Your task to perform on an android device: turn on translation in the chrome app Image 0: 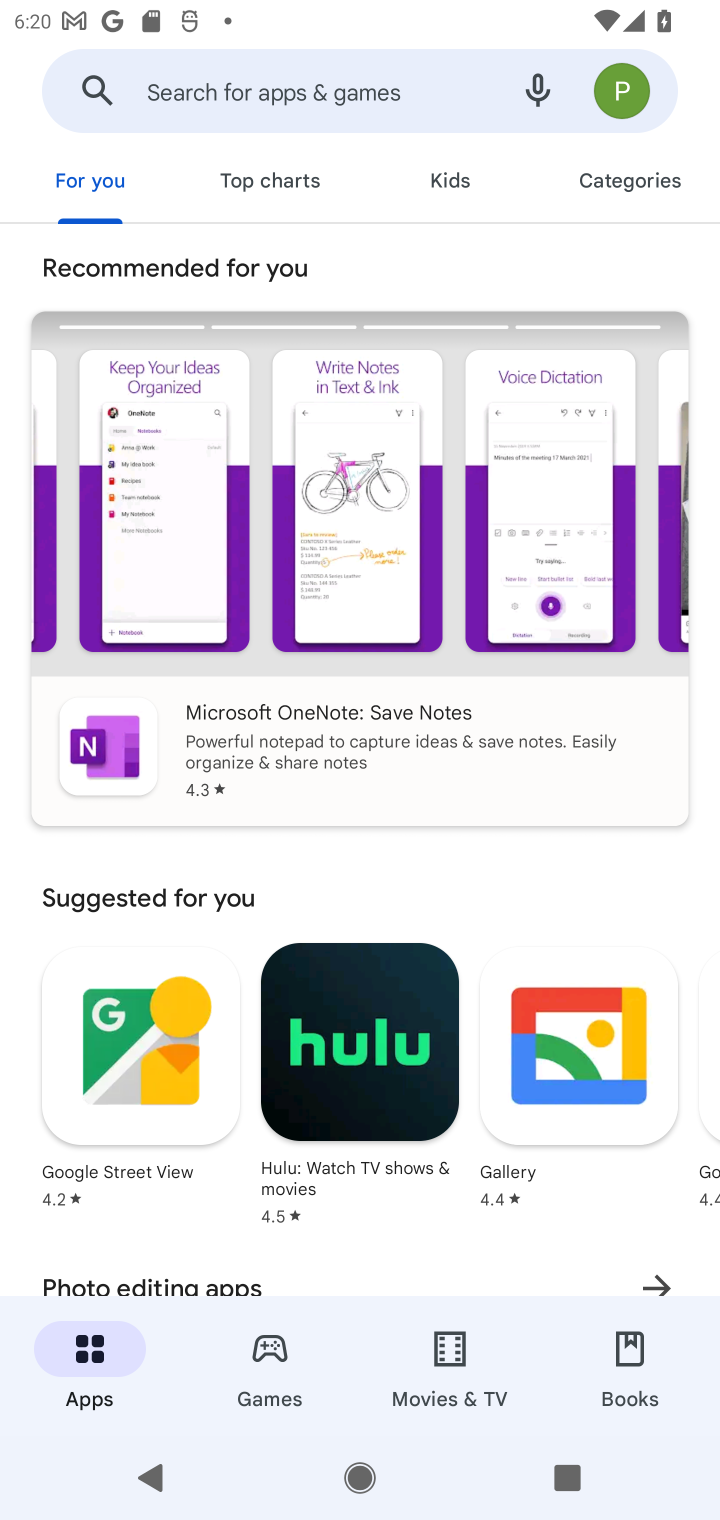
Step 0: press home button
Your task to perform on an android device: turn on translation in the chrome app Image 1: 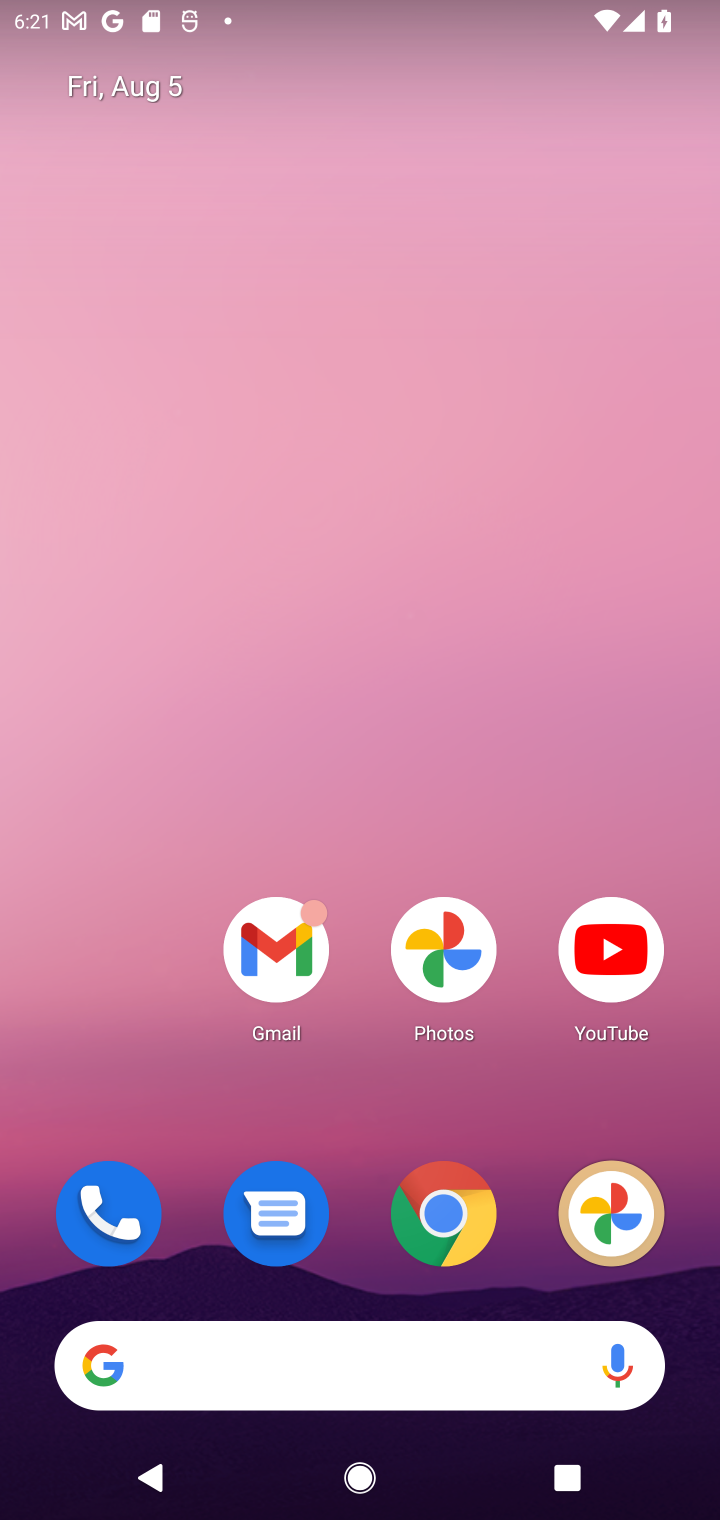
Step 1: click (448, 1238)
Your task to perform on an android device: turn on translation in the chrome app Image 2: 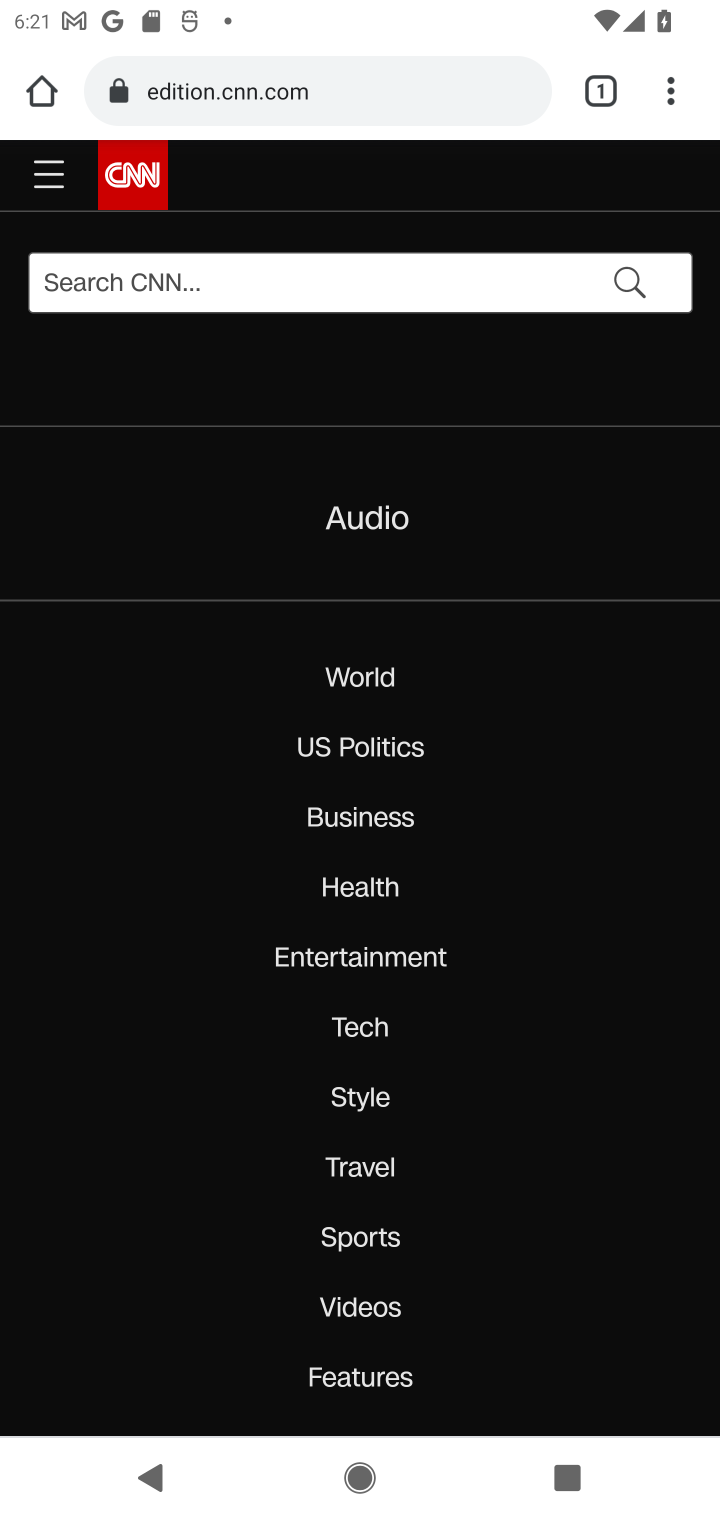
Step 2: click (681, 97)
Your task to perform on an android device: turn on translation in the chrome app Image 3: 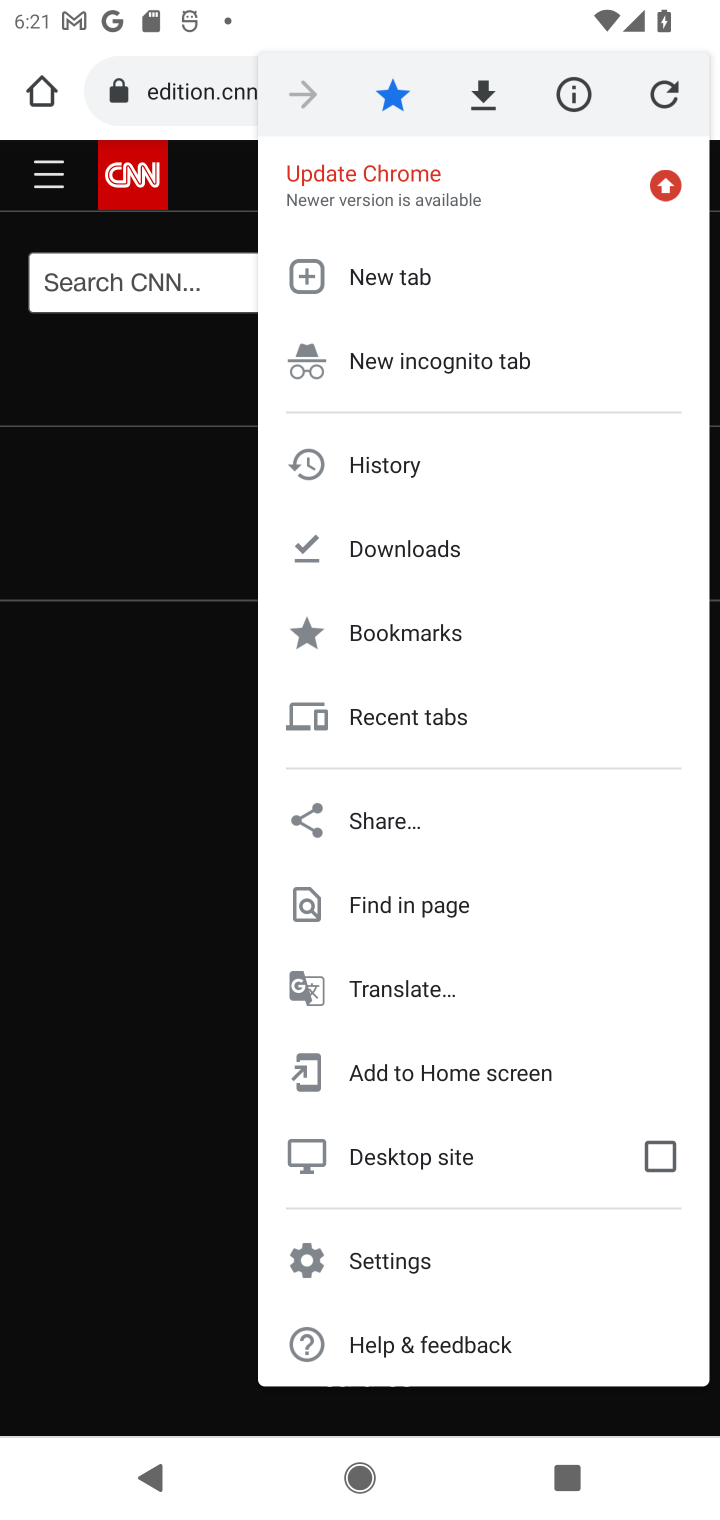
Step 3: click (420, 1289)
Your task to perform on an android device: turn on translation in the chrome app Image 4: 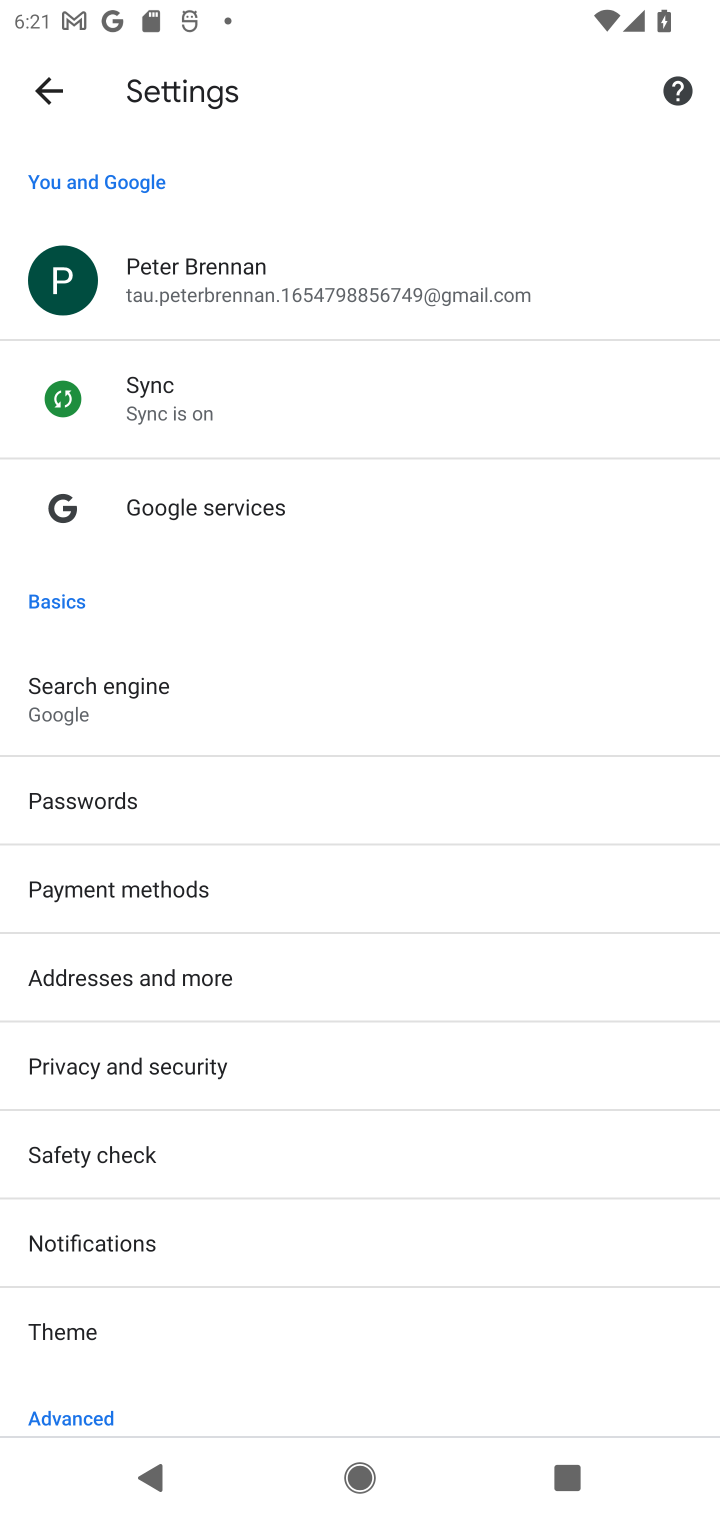
Step 4: task complete